Your task to perform on an android device: Open Amazon Image 0: 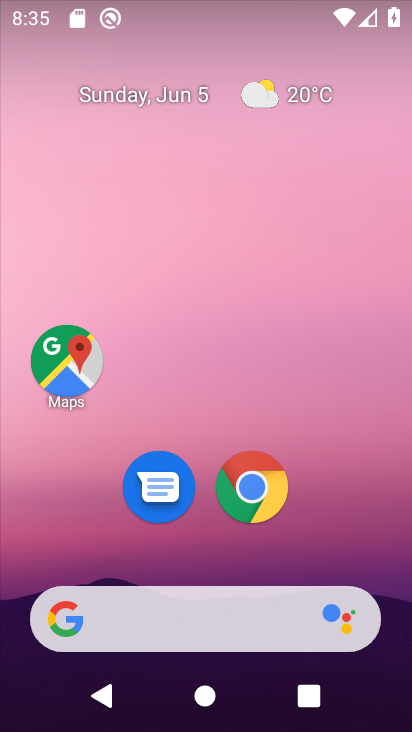
Step 0: click (261, 480)
Your task to perform on an android device: Open Amazon Image 1: 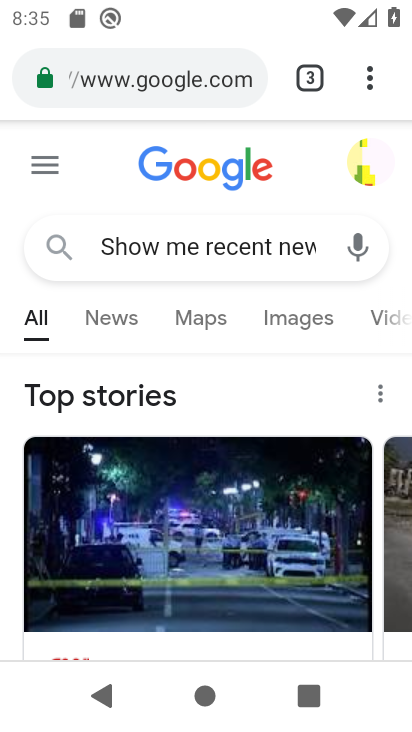
Step 1: click (370, 74)
Your task to perform on an android device: Open Amazon Image 2: 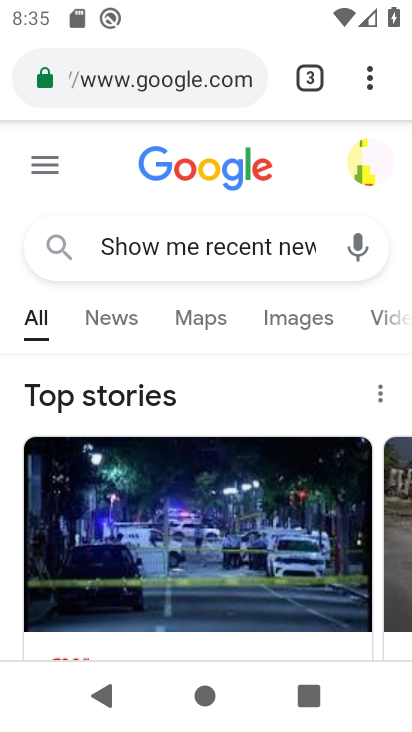
Step 2: click (369, 72)
Your task to perform on an android device: Open Amazon Image 3: 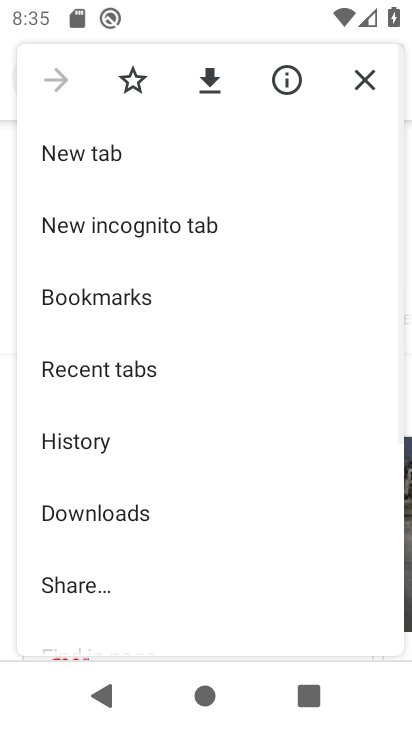
Step 3: click (111, 158)
Your task to perform on an android device: Open Amazon Image 4: 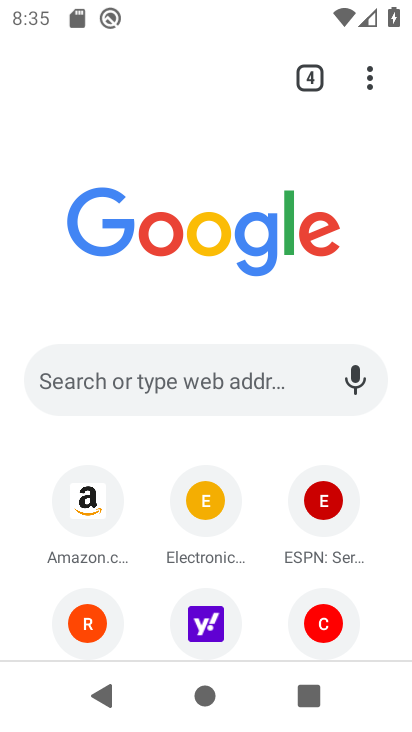
Step 4: click (95, 511)
Your task to perform on an android device: Open Amazon Image 5: 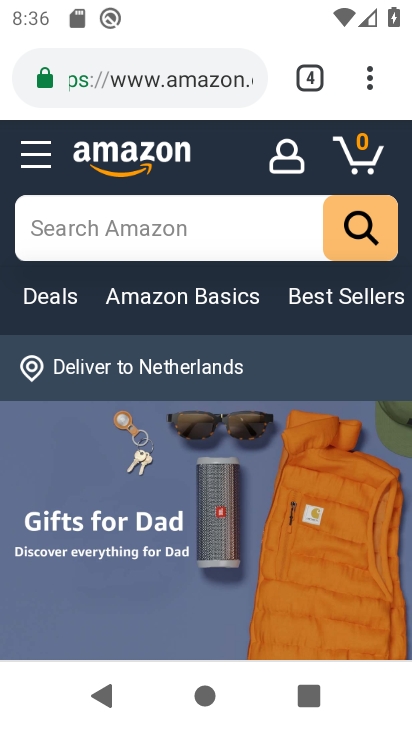
Step 5: task complete